Your task to perform on an android device: Go to wifi settings Image 0: 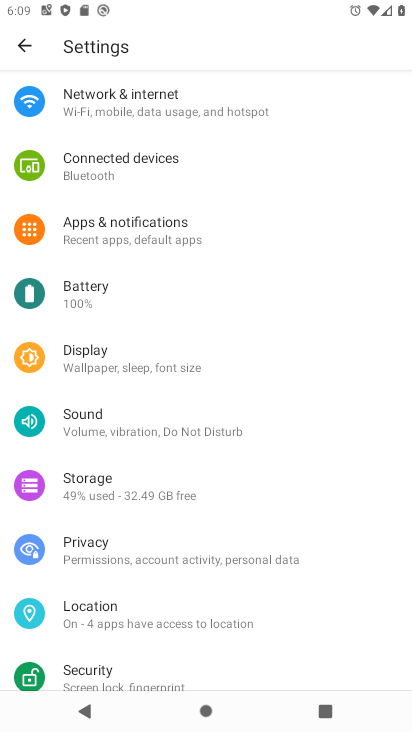
Step 0: drag from (146, 11) to (105, 500)
Your task to perform on an android device: Go to wifi settings Image 1: 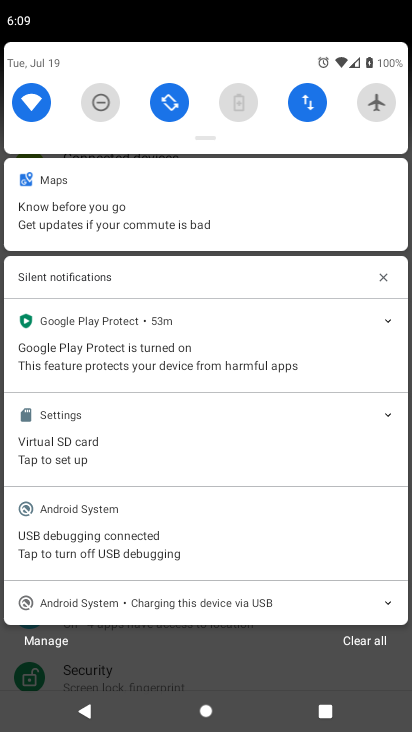
Step 1: click (43, 115)
Your task to perform on an android device: Go to wifi settings Image 2: 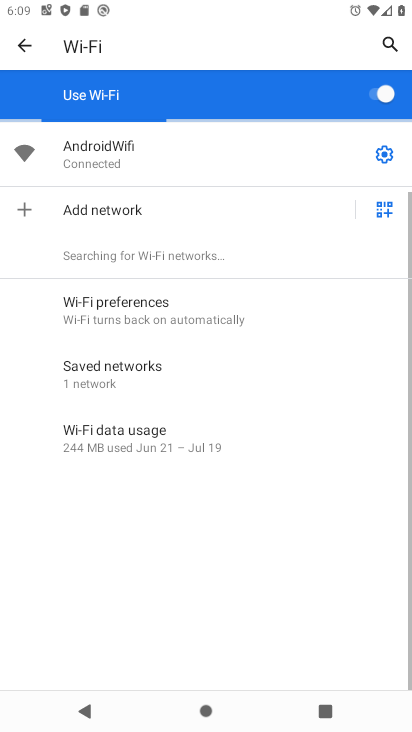
Step 2: task complete